Your task to perform on an android device: Open the phone app and click the voicemail tab. Image 0: 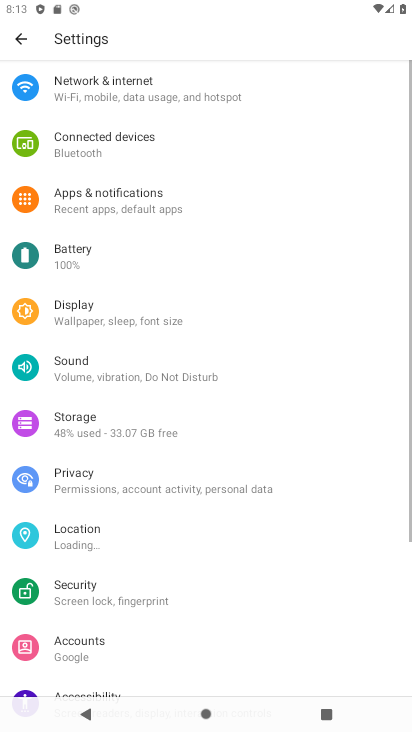
Step 0: press home button
Your task to perform on an android device: Open the phone app and click the voicemail tab. Image 1: 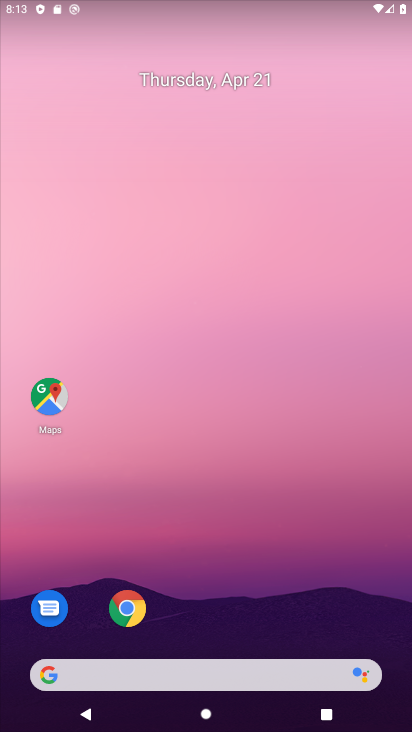
Step 1: drag from (235, 597) to (237, 126)
Your task to perform on an android device: Open the phone app and click the voicemail tab. Image 2: 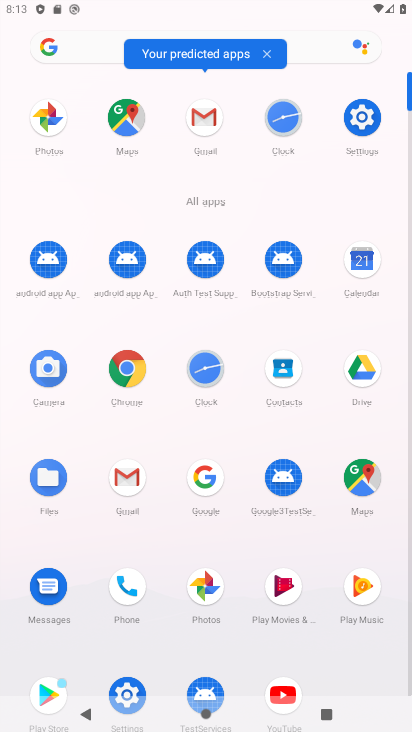
Step 2: click (122, 589)
Your task to perform on an android device: Open the phone app and click the voicemail tab. Image 3: 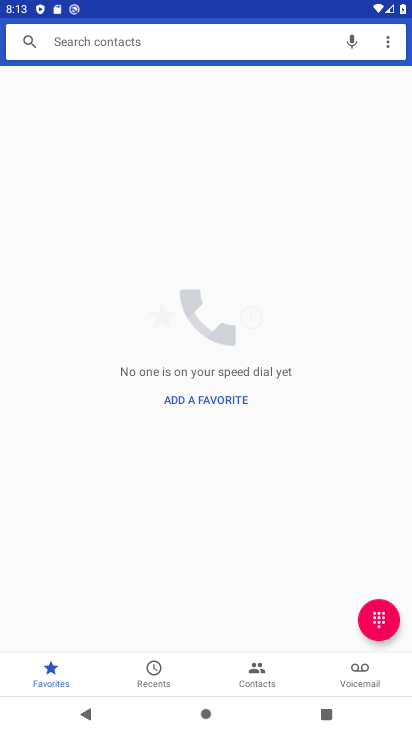
Step 3: click (348, 673)
Your task to perform on an android device: Open the phone app and click the voicemail tab. Image 4: 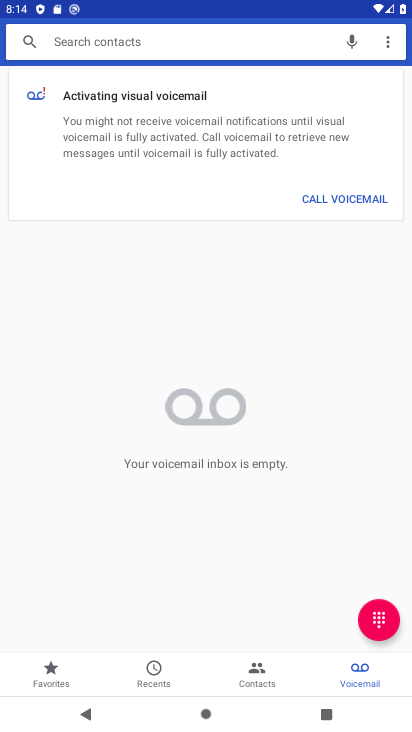
Step 4: task complete